Your task to perform on an android device: What time is it in Sydney? Image 0: 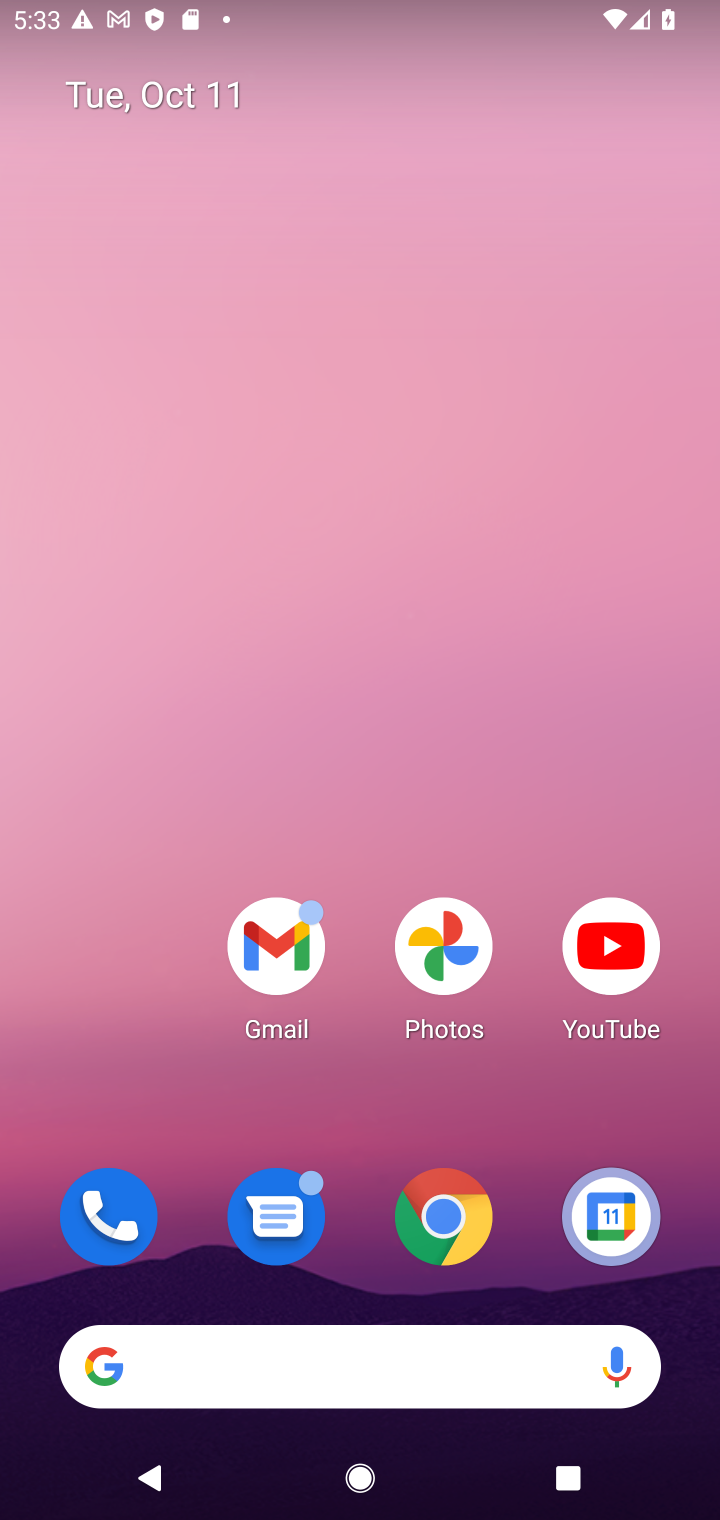
Step 0: click (445, 1224)
Your task to perform on an android device: What time is it in Sydney? Image 1: 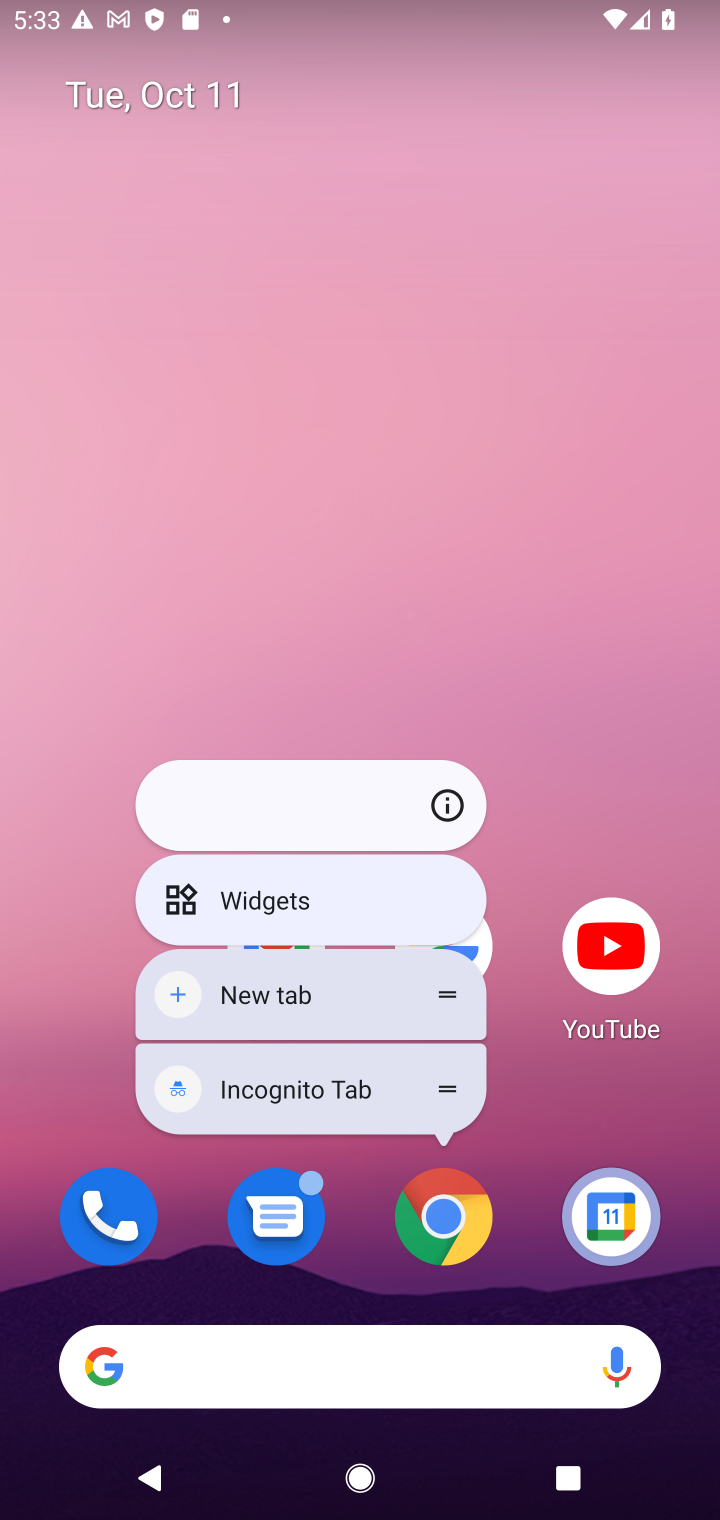
Step 1: click (445, 1224)
Your task to perform on an android device: What time is it in Sydney? Image 2: 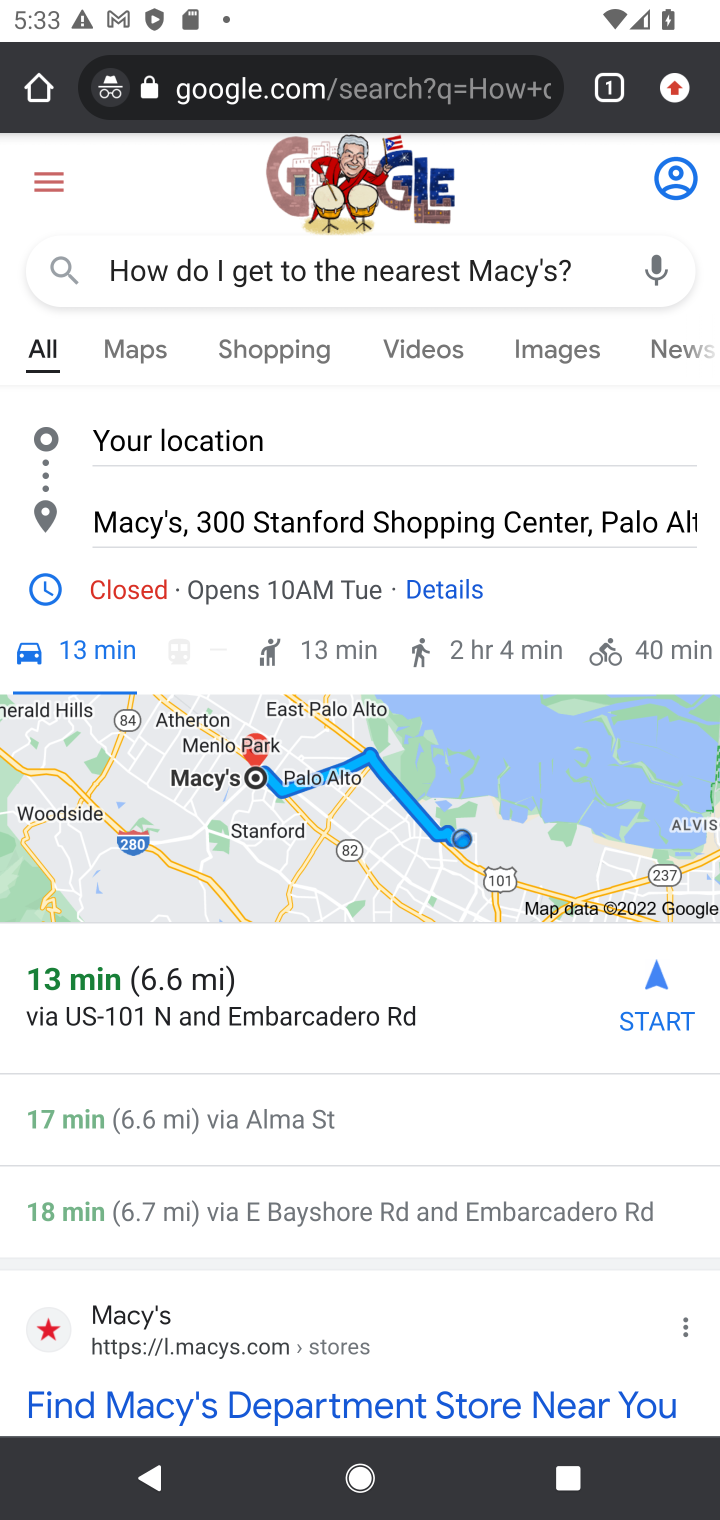
Step 2: click (393, 80)
Your task to perform on an android device: What time is it in Sydney? Image 3: 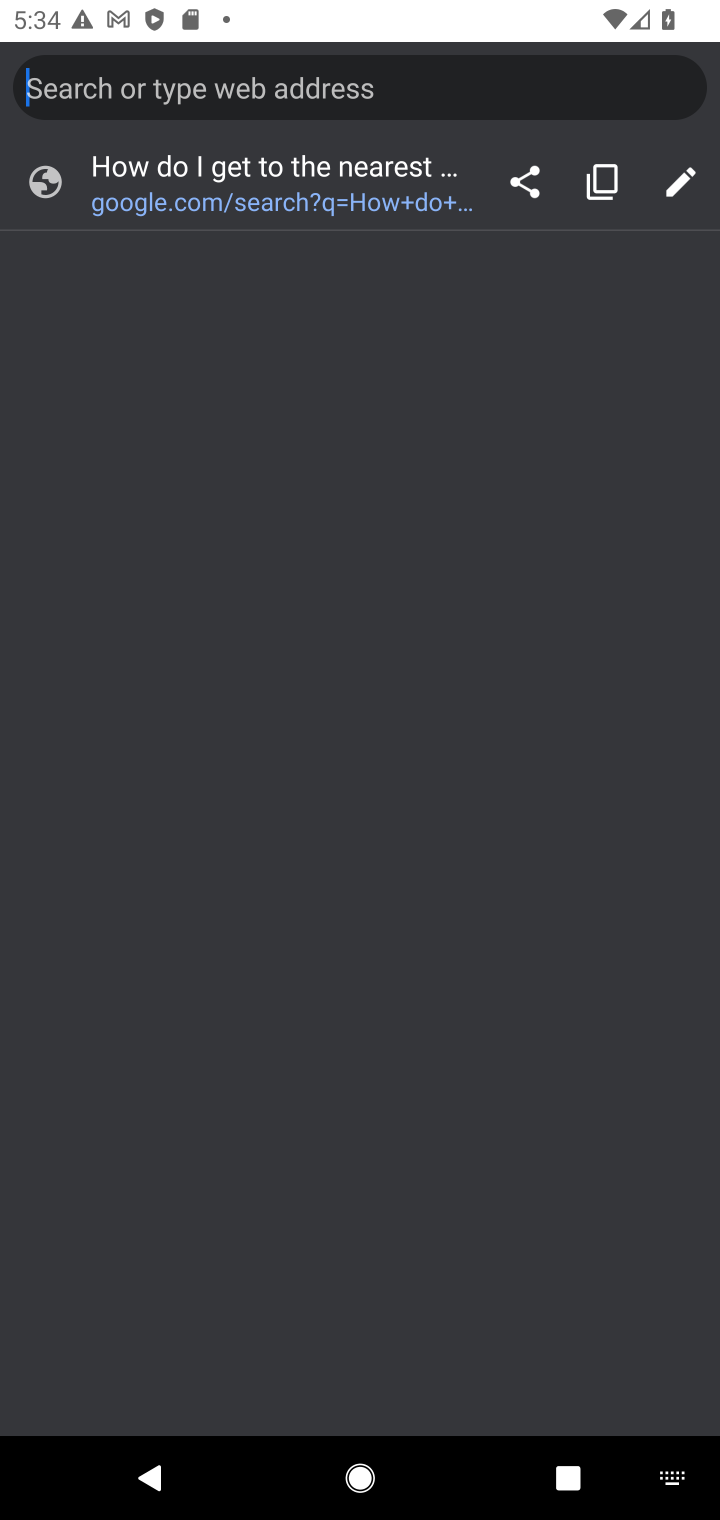
Step 3: type "What time is it in Sydney?"
Your task to perform on an android device: What time is it in Sydney? Image 4: 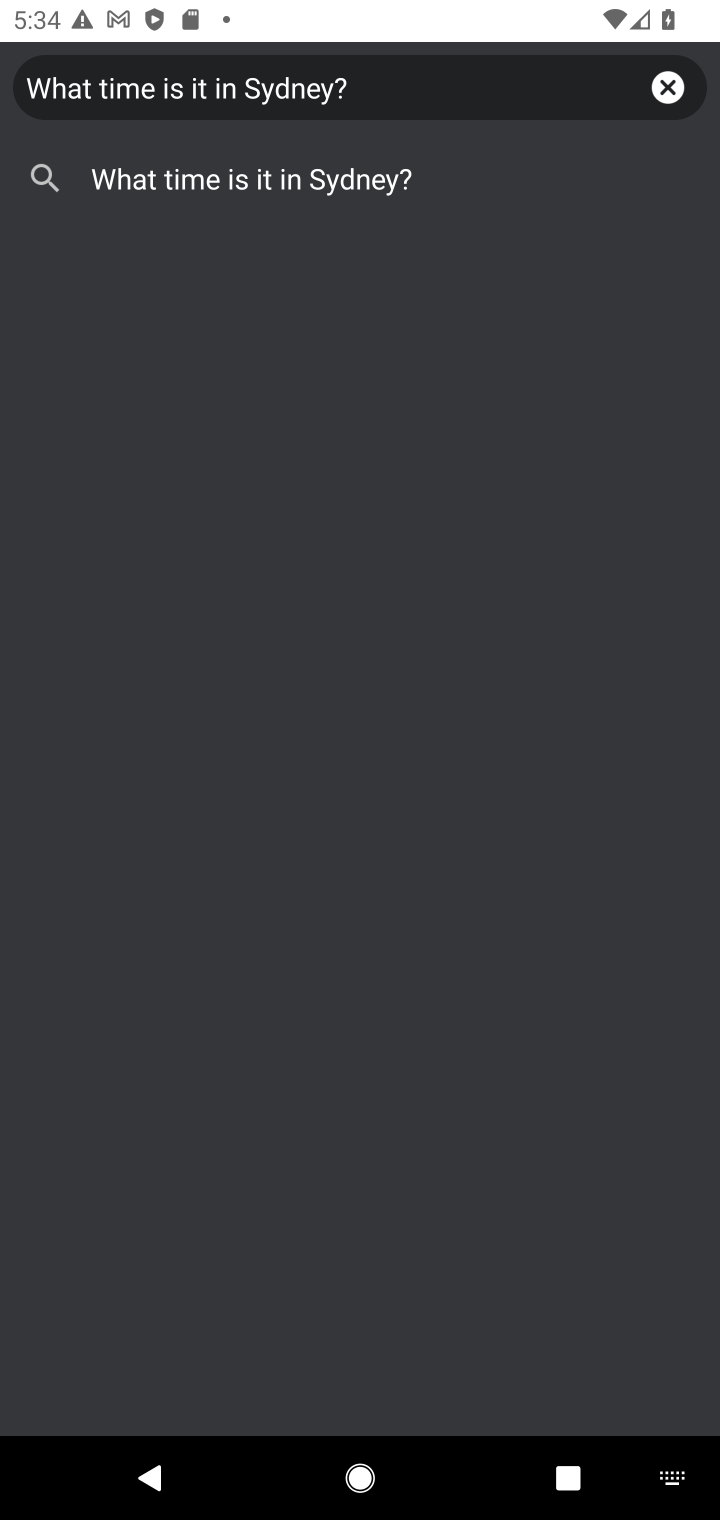
Step 4: click (276, 192)
Your task to perform on an android device: What time is it in Sydney? Image 5: 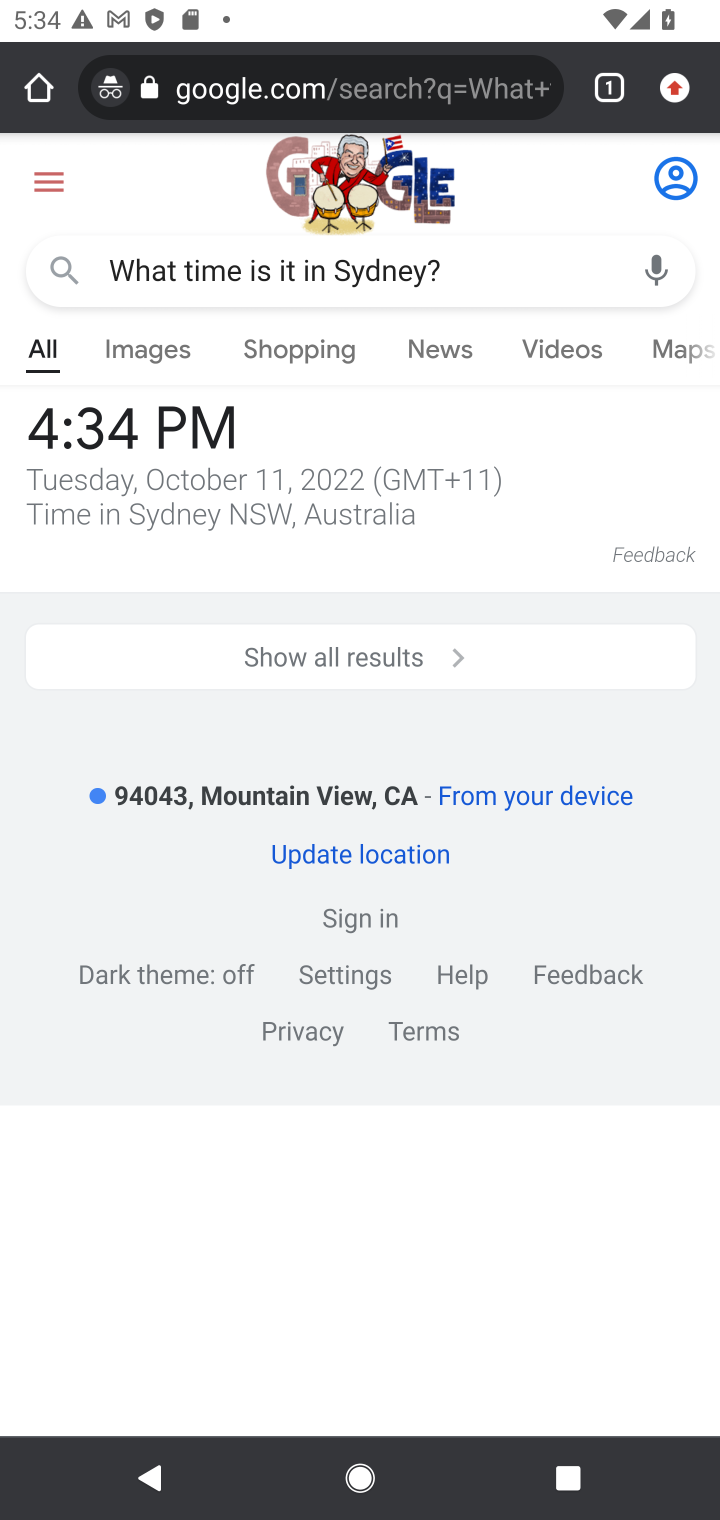
Step 5: task complete